Your task to perform on an android device: change the clock display to analog Image 0: 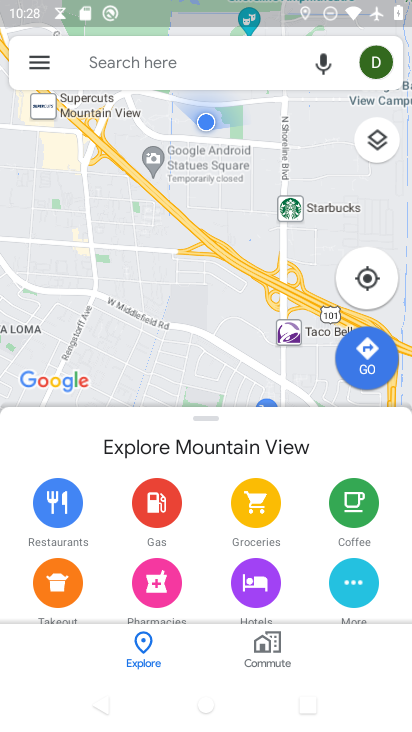
Step 0: press home button
Your task to perform on an android device: change the clock display to analog Image 1: 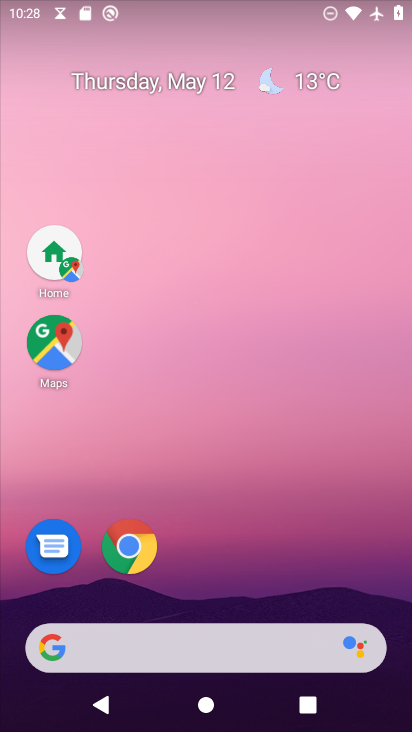
Step 1: drag from (213, 652) to (290, 256)
Your task to perform on an android device: change the clock display to analog Image 2: 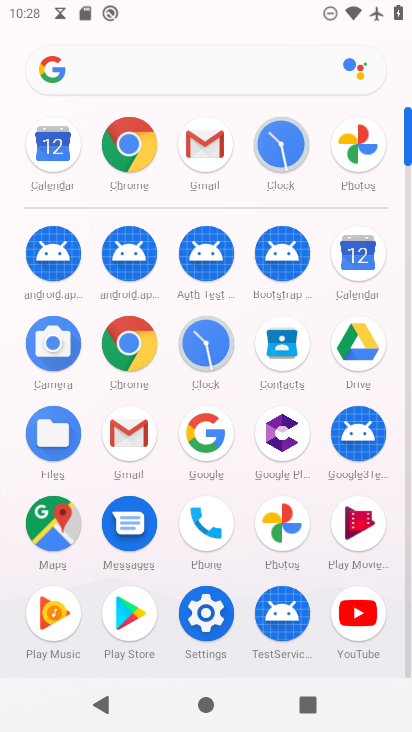
Step 2: click (288, 150)
Your task to perform on an android device: change the clock display to analog Image 3: 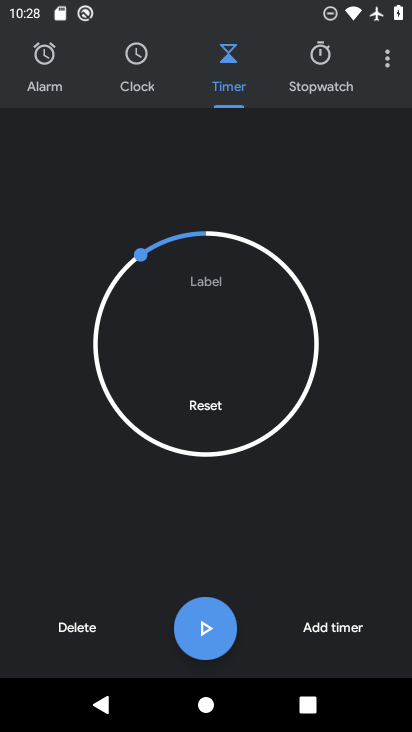
Step 3: click (391, 70)
Your task to perform on an android device: change the clock display to analog Image 4: 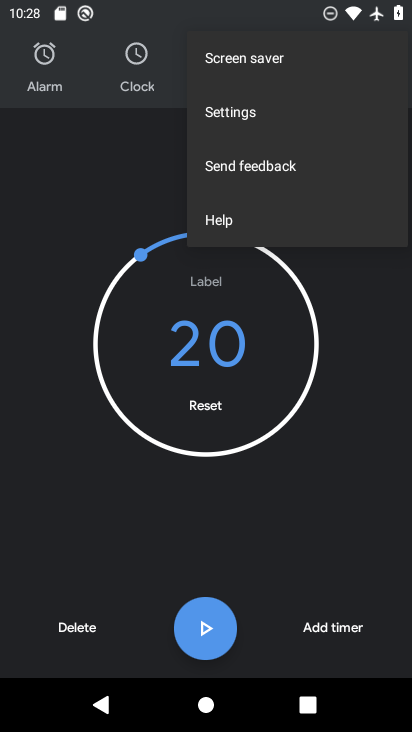
Step 4: click (241, 116)
Your task to perform on an android device: change the clock display to analog Image 5: 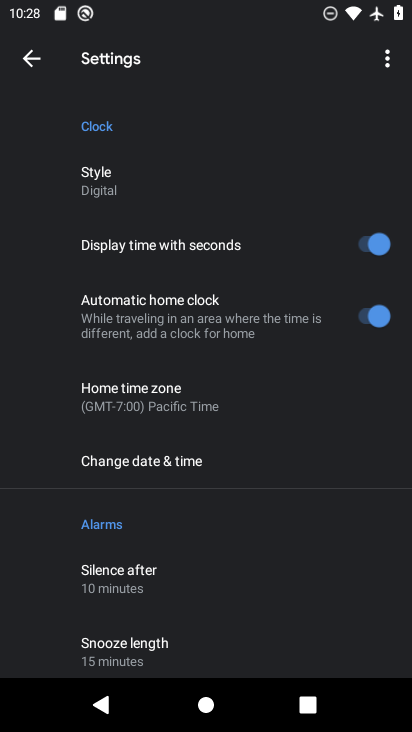
Step 5: click (108, 186)
Your task to perform on an android device: change the clock display to analog Image 6: 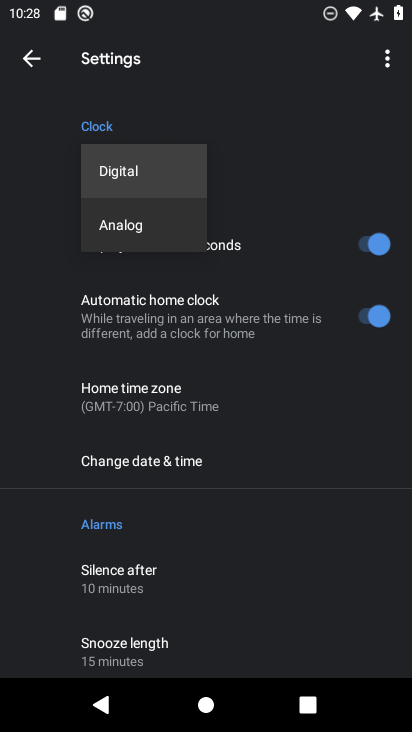
Step 6: click (131, 231)
Your task to perform on an android device: change the clock display to analog Image 7: 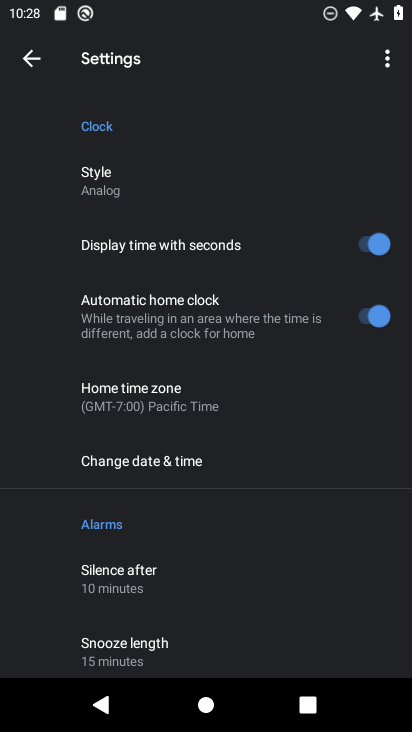
Step 7: task complete